Your task to perform on an android device: Open Google Maps Image 0: 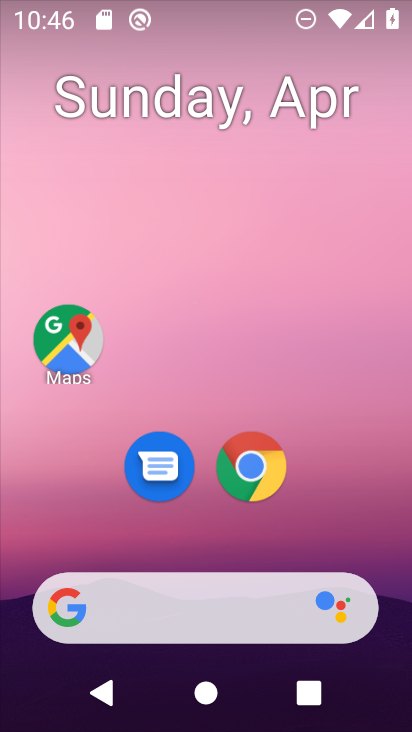
Step 0: drag from (373, 527) to (366, 144)
Your task to perform on an android device: Open Google Maps Image 1: 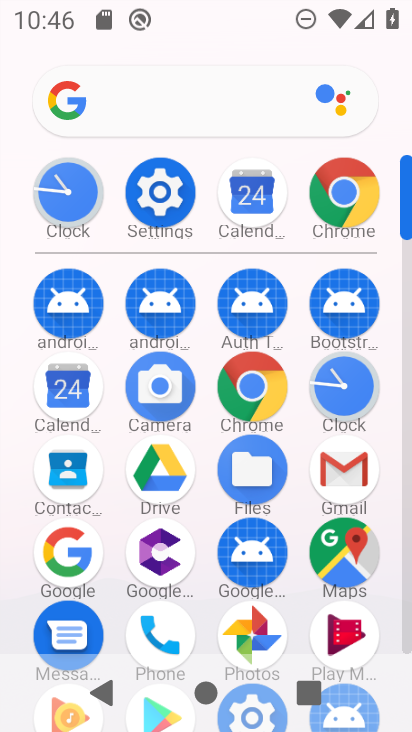
Step 1: click (341, 560)
Your task to perform on an android device: Open Google Maps Image 2: 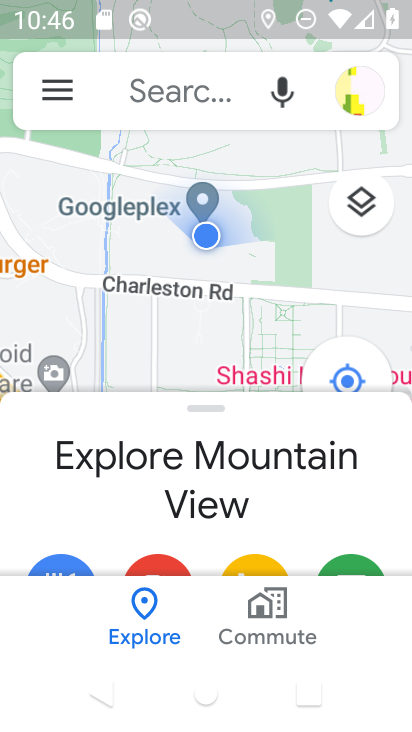
Step 2: task complete